Your task to perform on an android device: change the upload size in google photos Image 0: 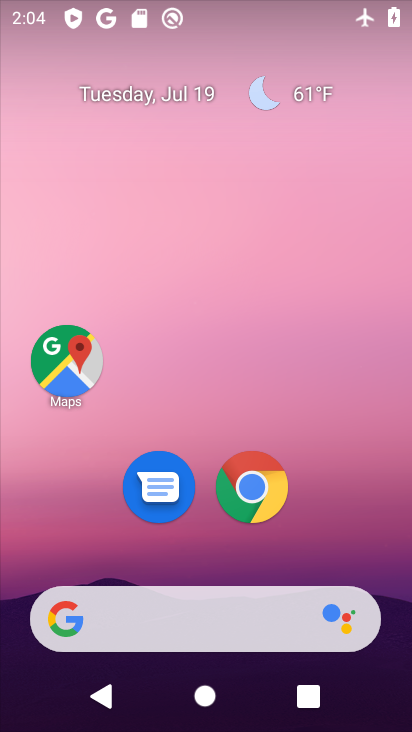
Step 0: drag from (210, 554) to (283, 59)
Your task to perform on an android device: change the upload size in google photos Image 1: 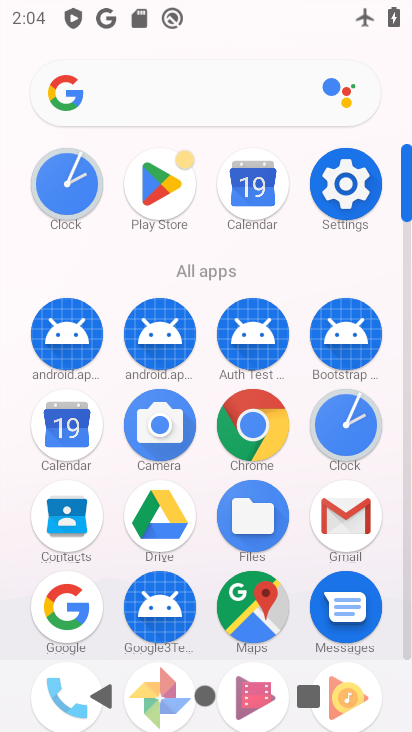
Step 1: drag from (196, 543) to (265, 41)
Your task to perform on an android device: change the upload size in google photos Image 2: 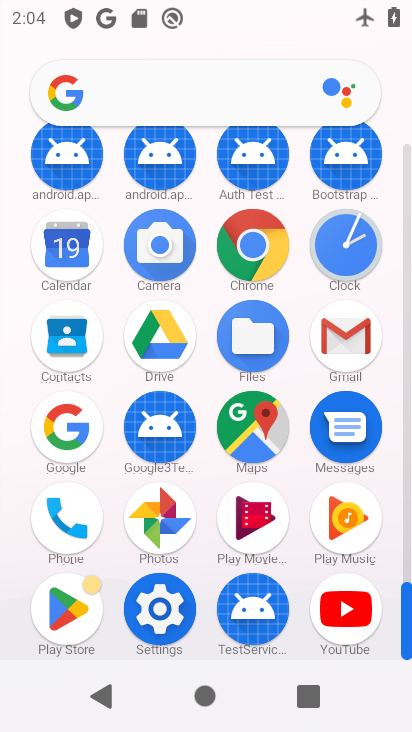
Step 2: click (154, 514)
Your task to perform on an android device: change the upload size in google photos Image 3: 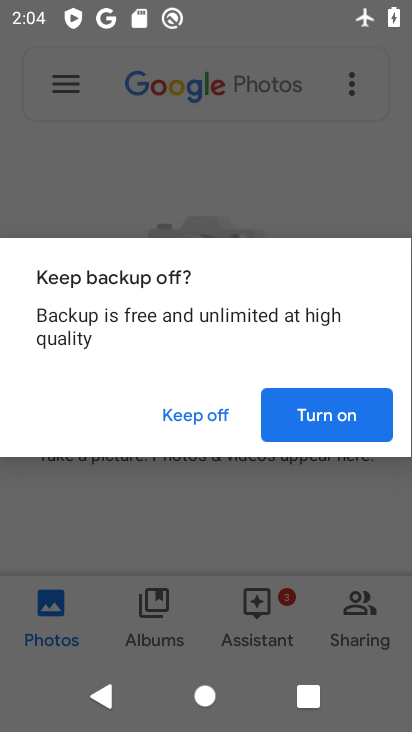
Step 3: click (195, 420)
Your task to perform on an android device: change the upload size in google photos Image 4: 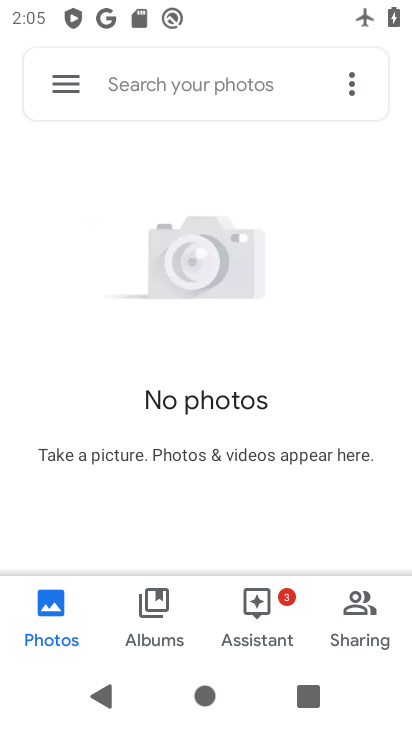
Step 4: click (60, 81)
Your task to perform on an android device: change the upload size in google photos Image 5: 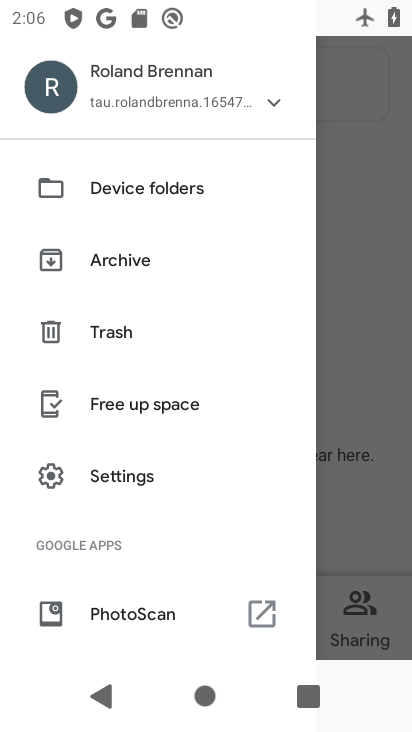
Step 5: click (120, 478)
Your task to perform on an android device: change the upload size in google photos Image 6: 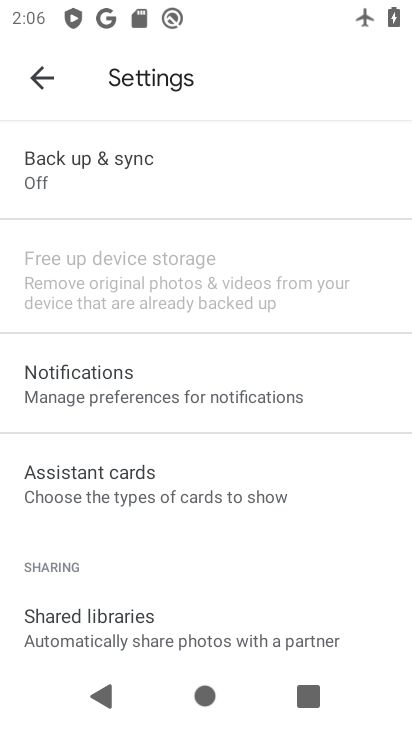
Step 6: click (158, 174)
Your task to perform on an android device: change the upload size in google photos Image 7: 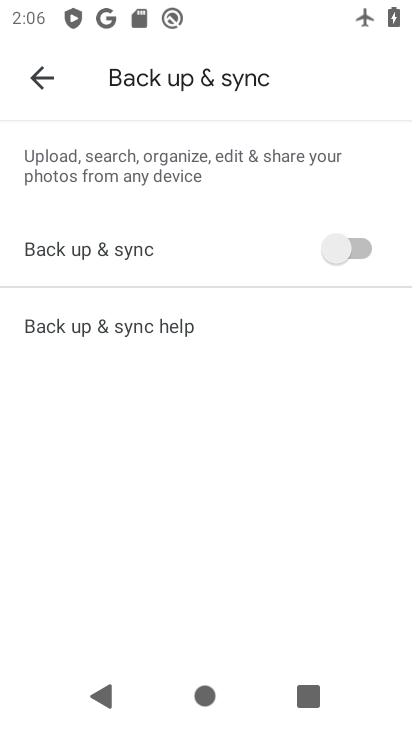
Step 7: task complete